Your task to perform on an android device: check data usage Image 0: 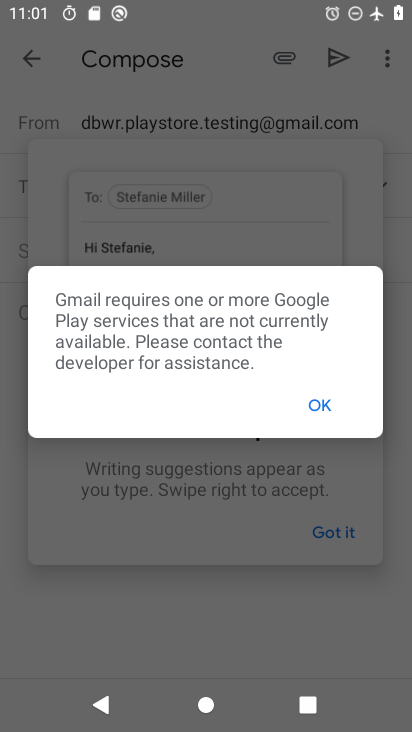
Step 0: drag from (327, 24) to (361, 475)
Your task to perform on an android device: check data usage Image 1: 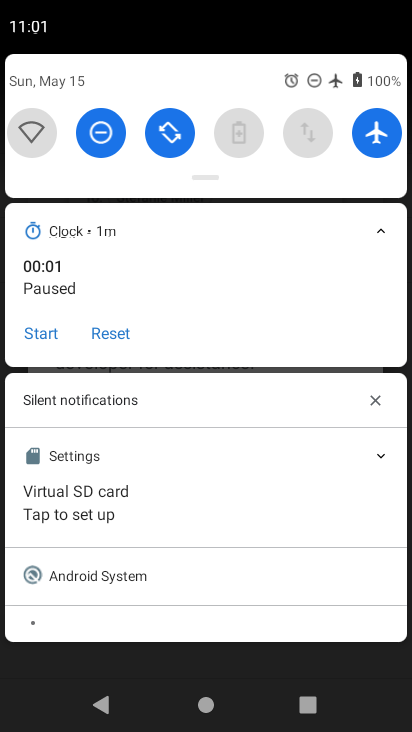
Step 1: click (375, 122)
Your task to perform on an android device: check data usage Image 2: 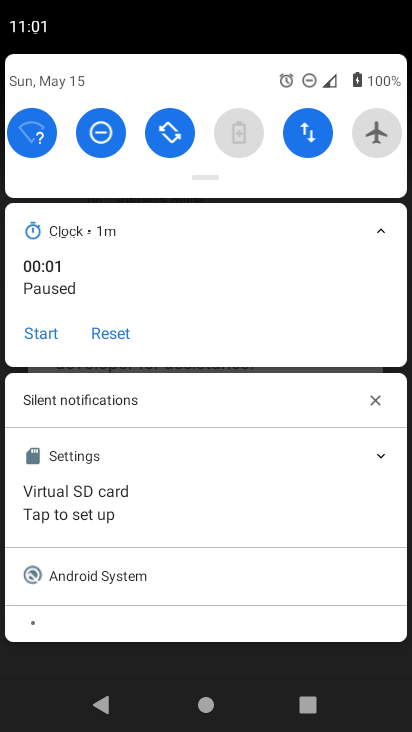
Step 2: drag from (304, 672) to (315, 0)
Your task to perform on an android device: check data usage Image 3: 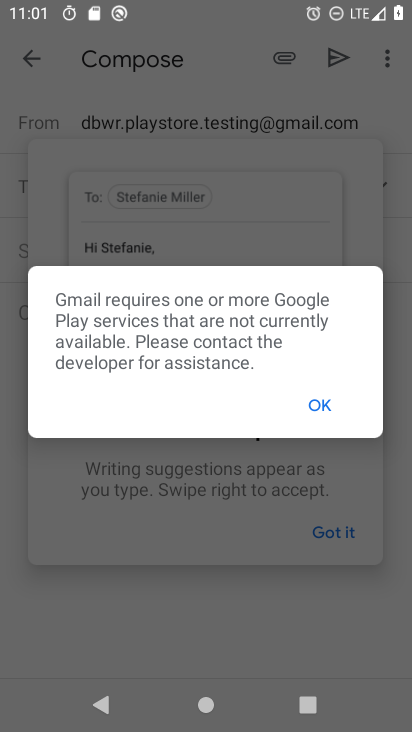
Step 3: press home button
Your task to perform on an android device: check data usage Image 4: 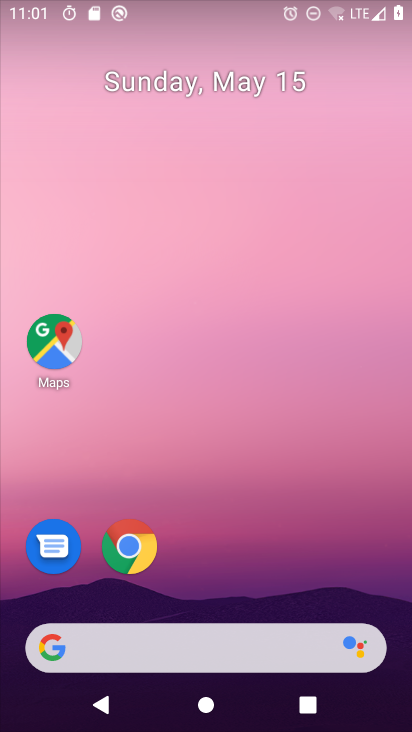
Step 4: drag from (305, 569) to (248, 103)
Your task to perform on an android device: check data usage Image 5: 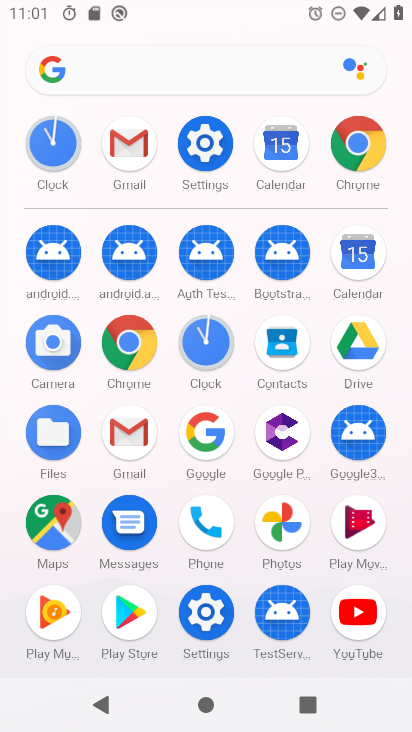
Step 5: click (214, 148)
Your task to perform on an android device: check data usage Image 6: 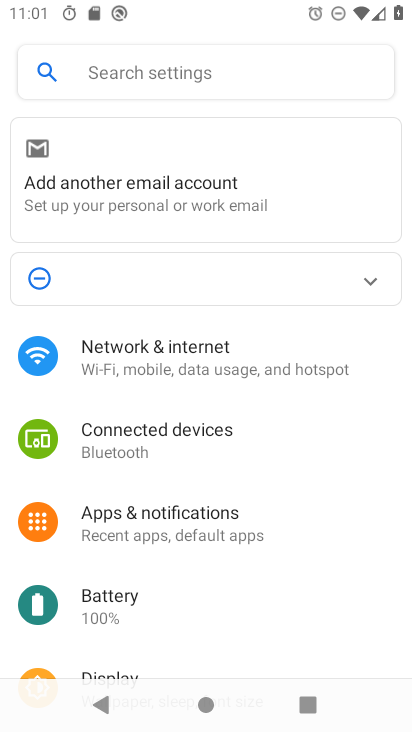
Step 6: click (257, 376)
Your task to perform on an android device: check data usage Image 7: 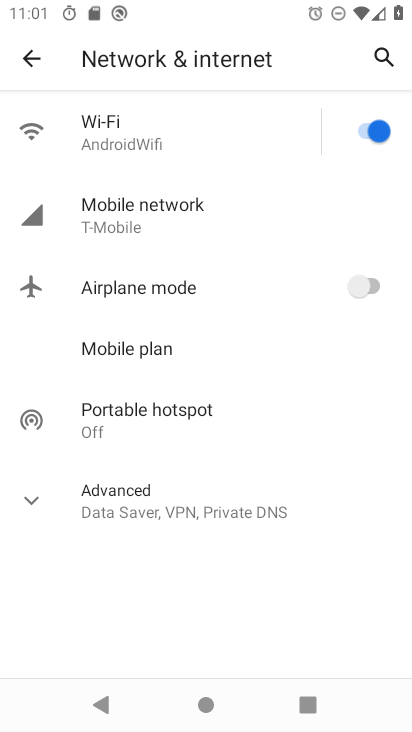
Step 7: click (163, 217)
Your task to perform on an android device: check data usage Image 8: 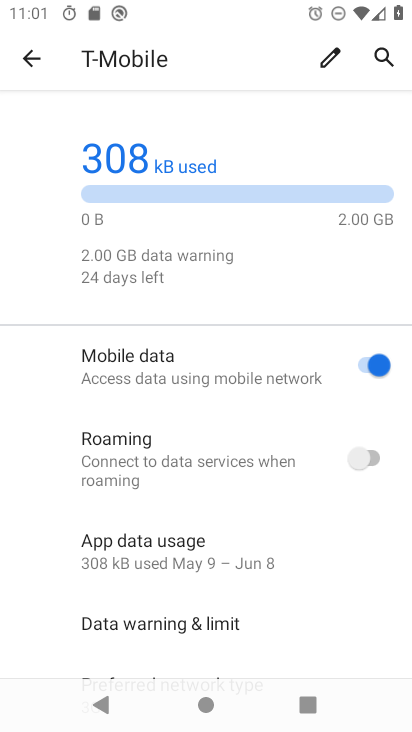
Step 8: task complete